Your task to perform on an android device: Open Google Chrome and click the shortcut for Amazon.com Image 0: 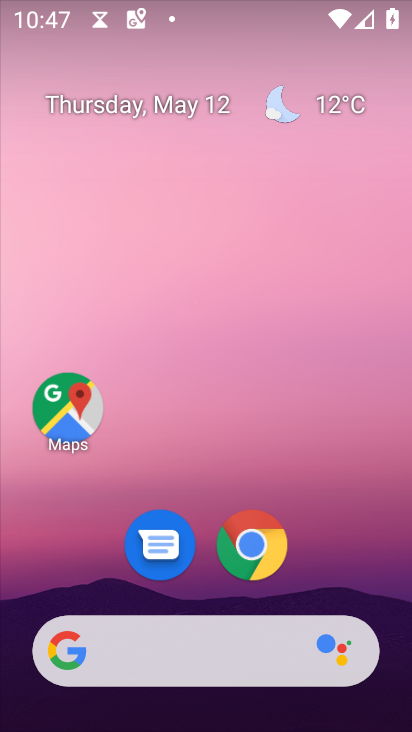
Step 0: press home button
Your task to perform on an android device: Open Google Chrome and click the shortcut for Amazon.com Image 1: 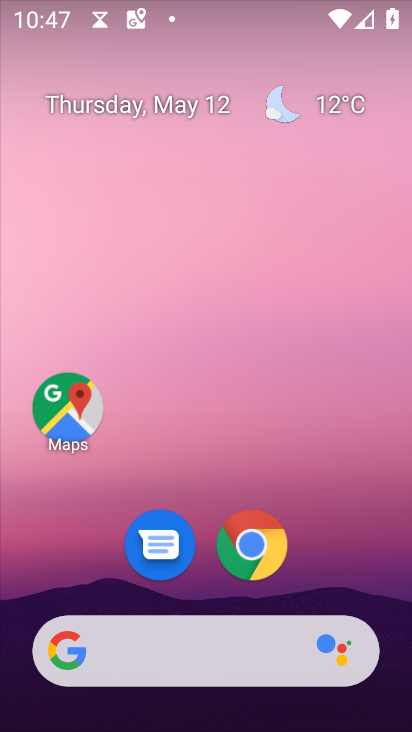
Step 1: click (249, 542)
Your task to perform on an android device: Open Google Chrome and click the shortcut for Amazon.com Image 2: 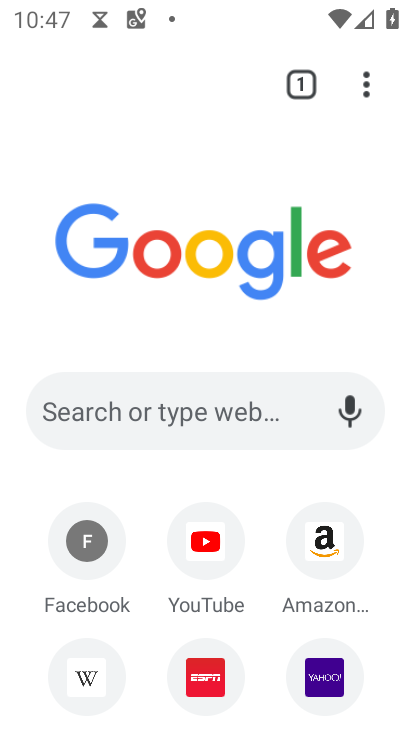
Step 2: click (320, 534)
Your task to perform on an android device: Open Google Chrome and click the shortcut for Amazon.com Image 3: 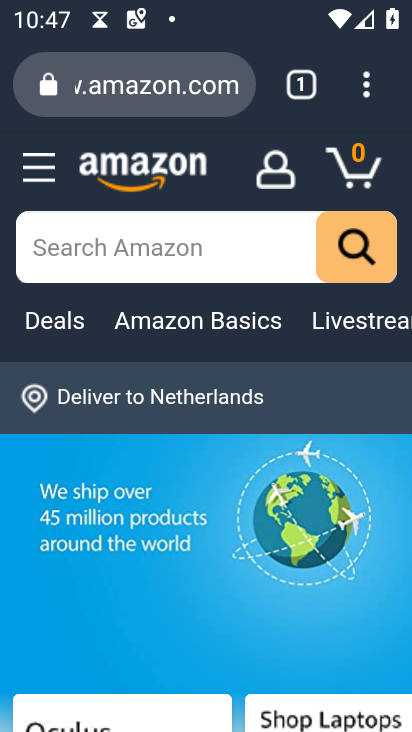
Step 3: task complete